Your task to perform on an android device: Check the weather Image 0: 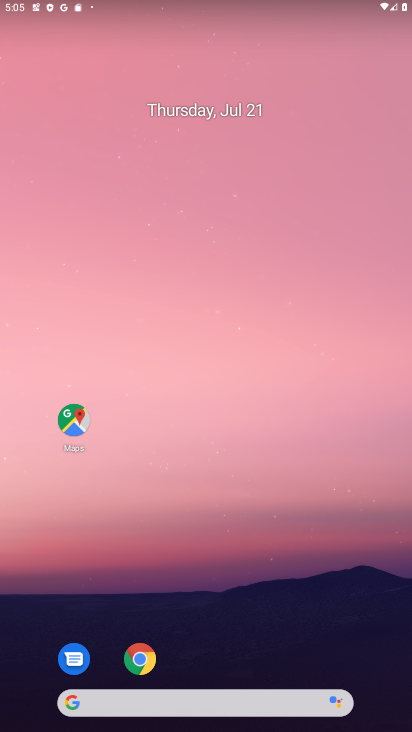
Step 0: click (205, 699)
Your task to perform on an android device: Check the weather Image 1: 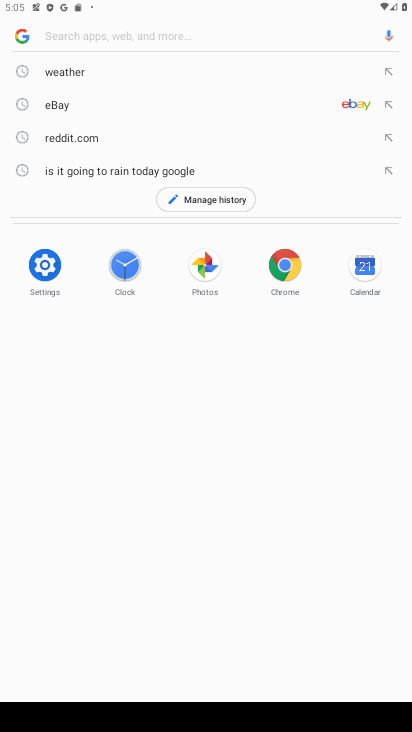
Step 1: click (56, 72)
Your task to perform on an android device: Check the weather Image 2: 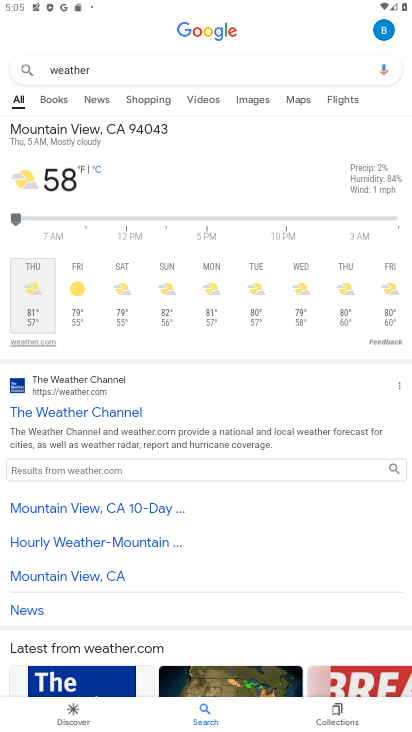
Step 2: task complete